Your task to perform on an android device: see tabs open on other devices in the chrome app Image 0: 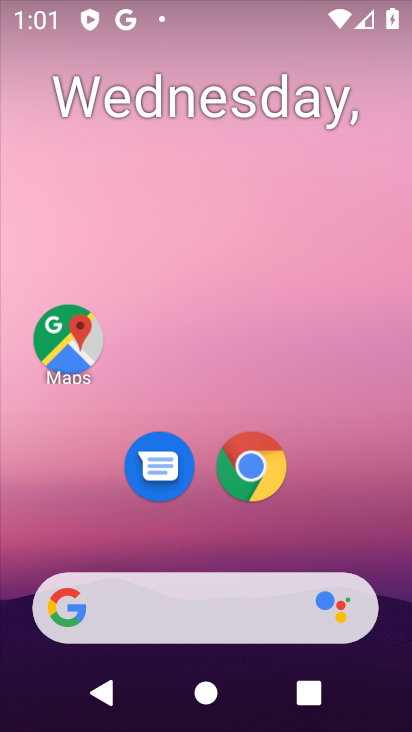
Step 0: click (248, 485)
Your task to perform on an android device: see tabs open on other devices in the chrome app Image 1: 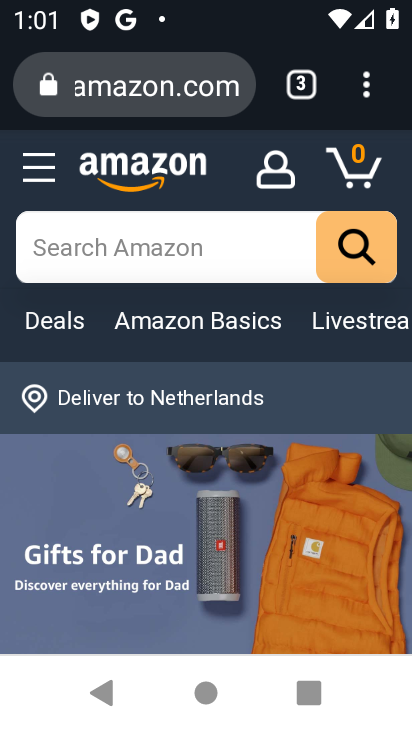
Step 1: click (293, 72)
Your task to perform on an android device: see tabs open on other devices in the chrome app Image 2: 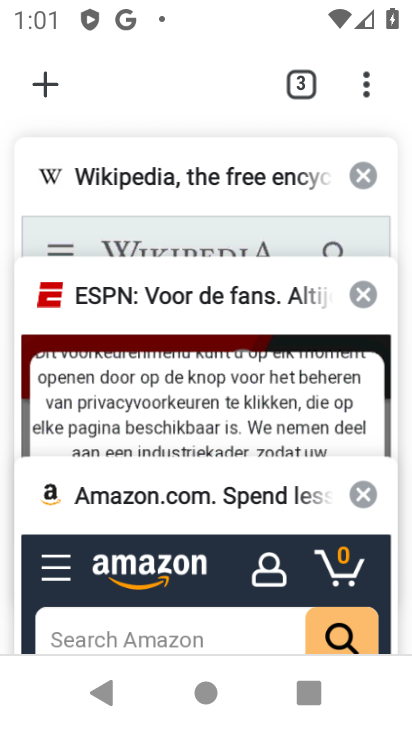
Step 2: click (108, 355)
Your task to perform on an android device: see tabs open on other devices in the chrome app Image 3: 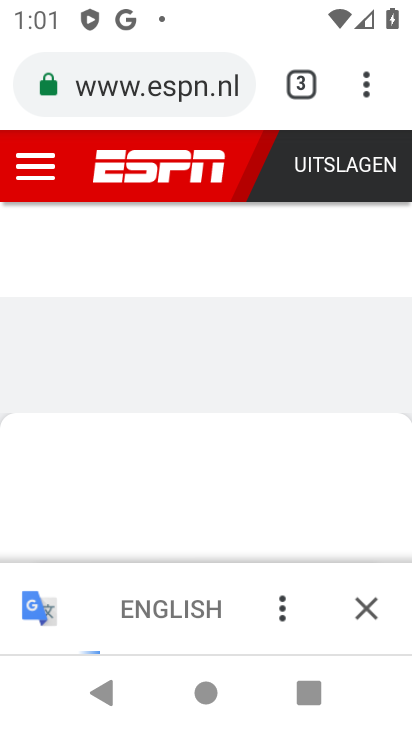
Step 3: task complete